Your task to perform on an android device: Open Google Maps and go to "Timeline" Image 0: 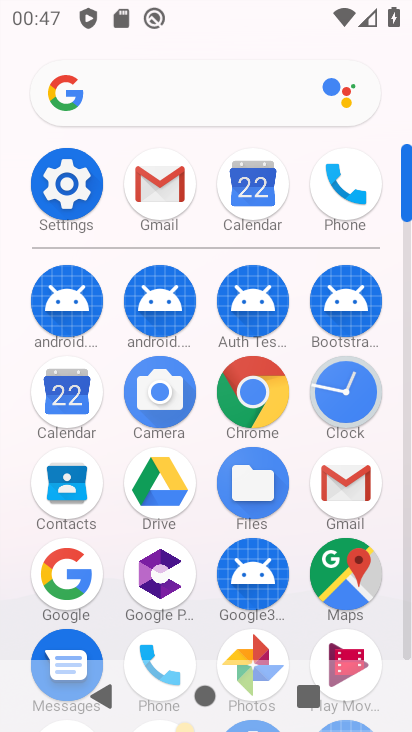
Step 0: click (343, 568)
Your task to perform on an android device: Open Google Maps and go to "Timeline" Image 1: 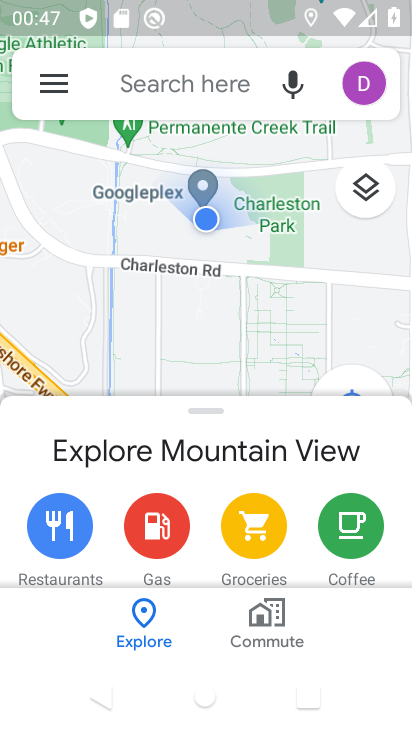
Step 1: click (45, 82)
Your task to perform on an android device: Open Google Maps and go to "Timeline" Image 2: 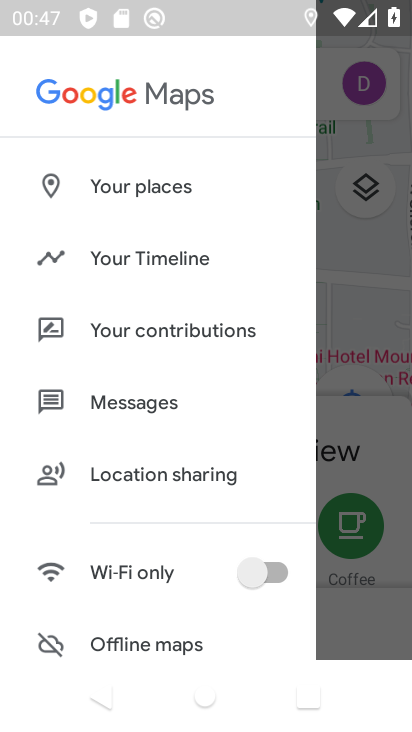
Step 2: click (122, 238)
Your task to perform on an android device: Open Google Maps and go to "Timeline" Image 3: 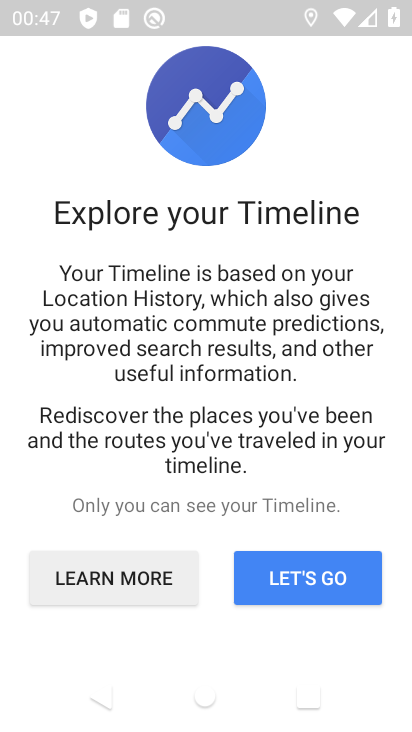
Step 3: task complete